Your task to perform on an android device: toggle improve location accuracy Image 0: 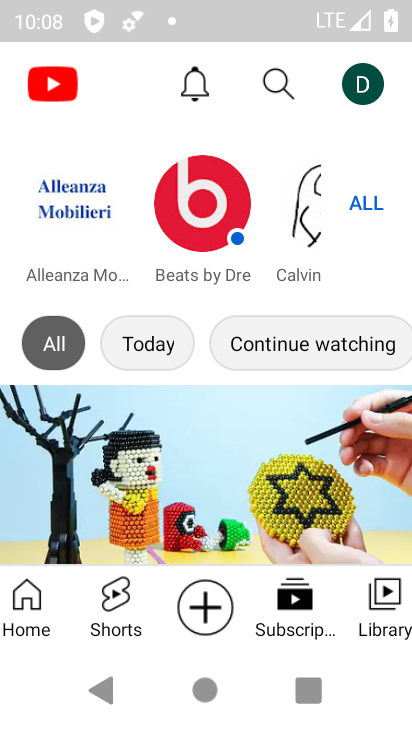
Step 0: press home button
Your task to perform on an android device: toggle improve location accuracy Image 1: 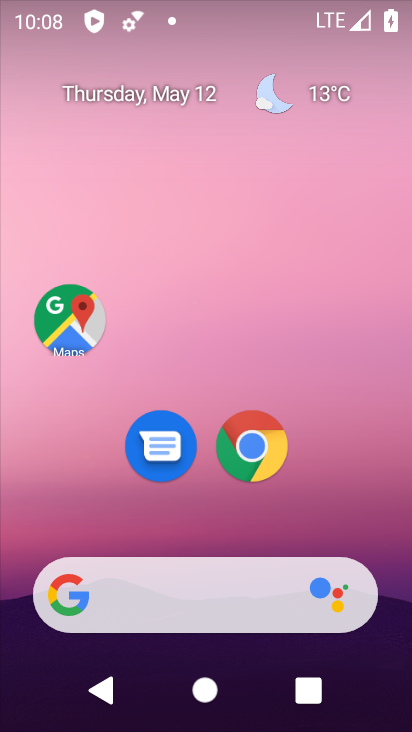
Step 1: drag from (215, 593) to (326, 29)
Your task to perform on an android device: toggle improve location accuracy Image 2: 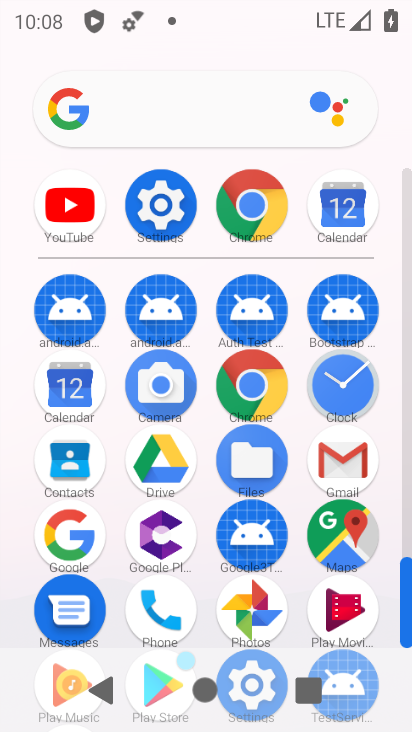
Step 2: click (162, 207)
Your task to perform on an android device: toggle improve location accuracy Image 3: 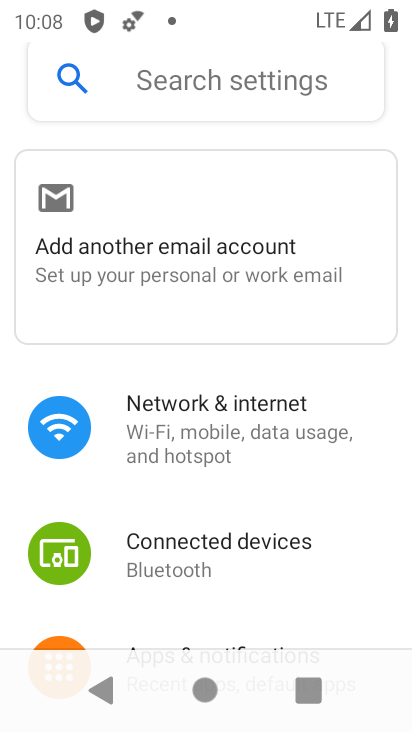
Step 3: drag from (195, 622) to (242, 3)
Your task to perform on an android device: toggle improve location accuracy Image 4: 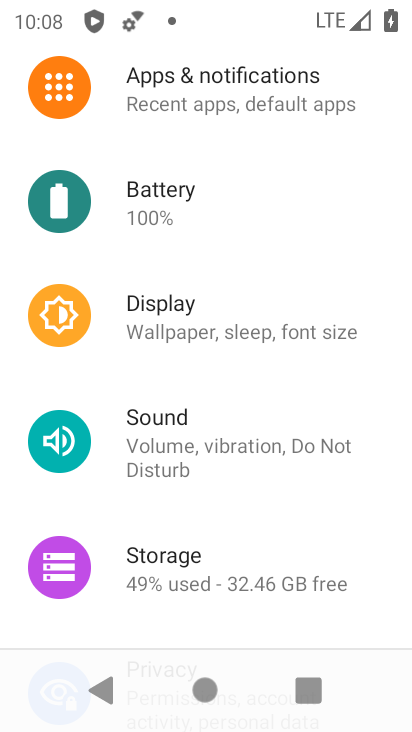
Step 4: drag from (161, 582) to (287, 24)
Your task to perform on an android device: toggle improve location accuracy Image 5: 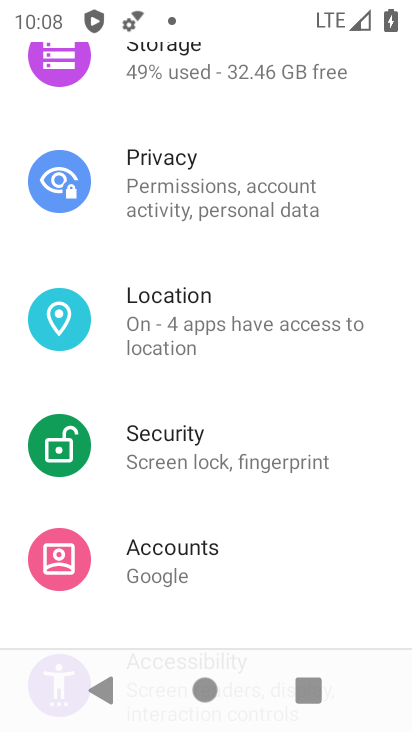
Step 5: click (178, 315)
Your task to perform on an android device: toggle improve location accuracy Image 6: 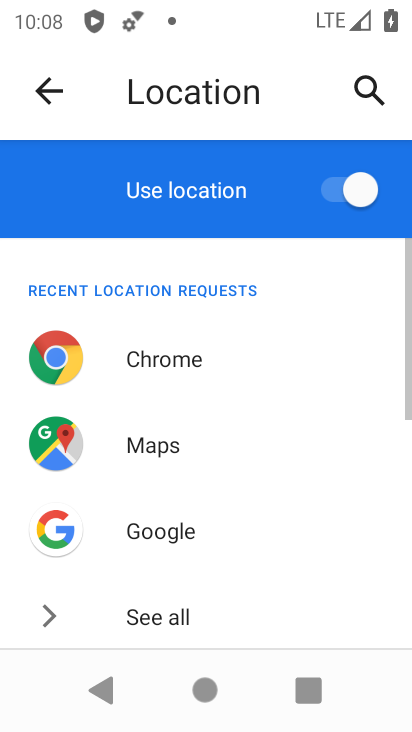
Step 6: drag from (201, 654) to (316, 14)
Your task to perform on an android device: toggle improve location accuracy Image 7: 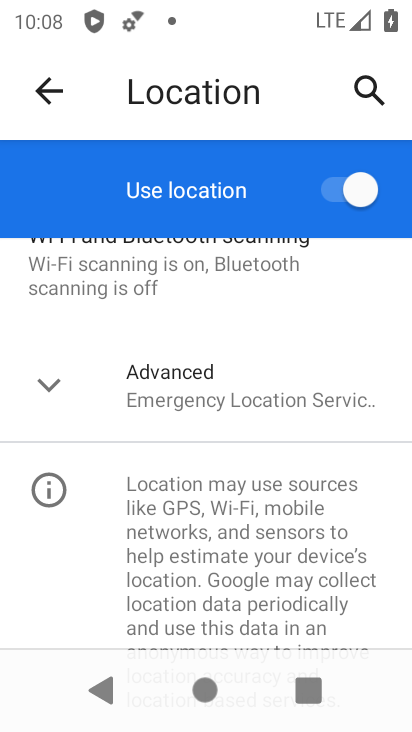
Step 7: click (213, 371)
Your task to perform on an android device: toggle improve location accuracy Image 8: 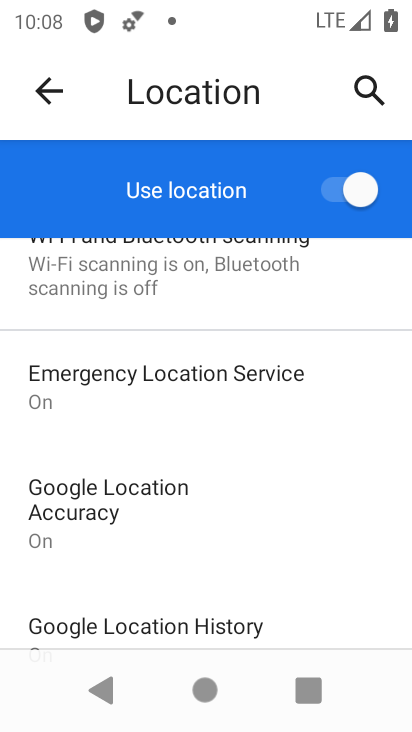
Step 8: drag from (213, 572) to (274, 313)
Your task to perform on an android device: toggle improve location accuracy Image 9: 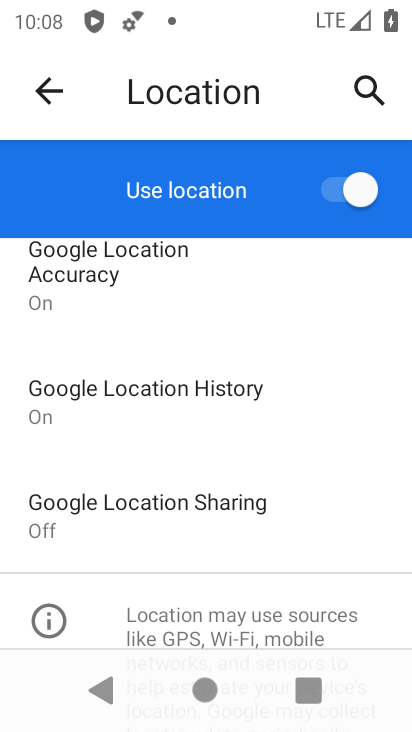
Step 9: click (208, 276)
Your task to perform on an android device: toggle improve location accuracy Image 10: 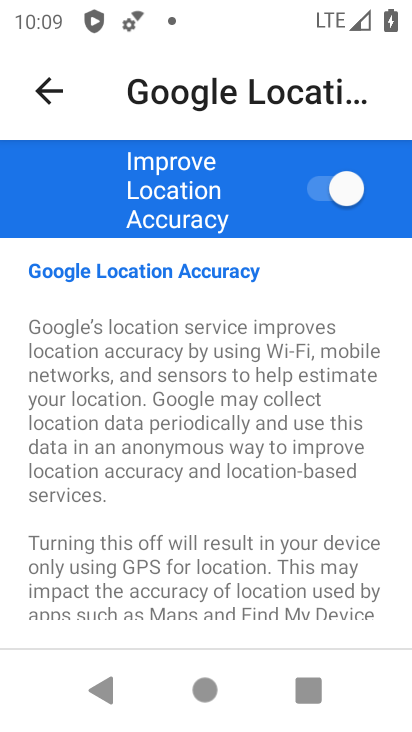
Step 10: click (326, 196)
Your task to perform on an android device: toggle improve location accuracy Image 11: 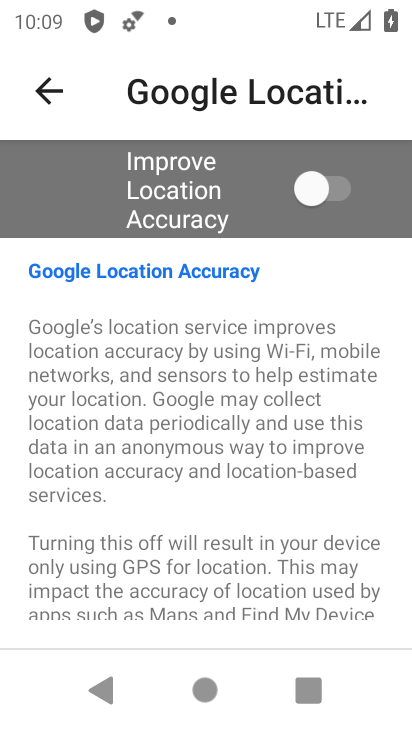
Step 11: task complete